Your task to perform on an android device: see tabs open on other devices in the chrome app Image 0: 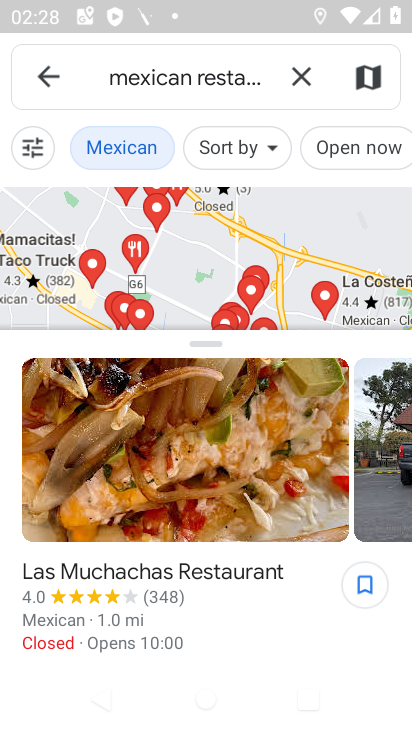
Step 0: press home button
Your task to perform on an android device: see tabs open on other devices in the chrome app Image 1: 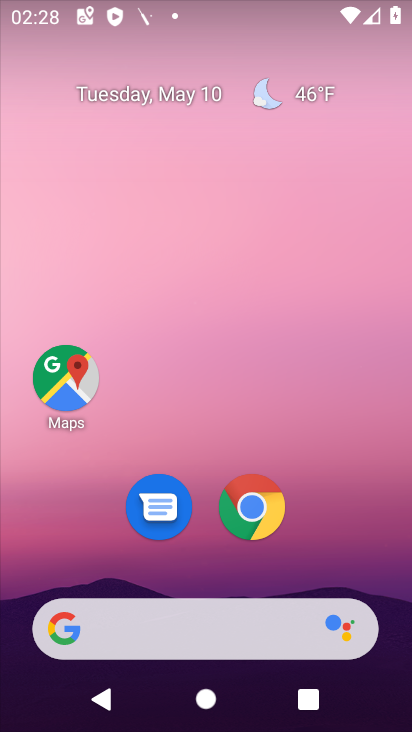
Step 1: drag from (228, 651) to (184, 40)
Your task to perform on an android device: see tabs open on other devices in the chrome app Image 2: 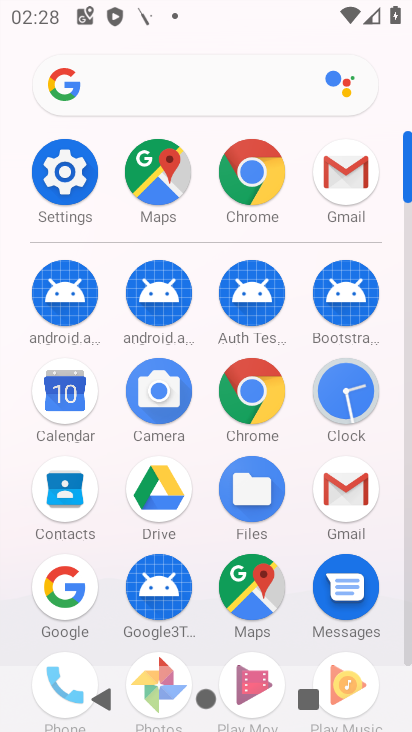
Step 2: click (253, 157)
Your task to perform on an android device: see tabs open on other devices in the chrome app Image 3: 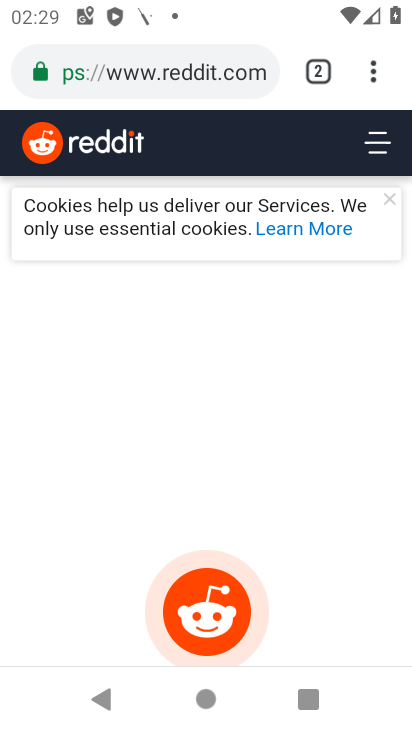
Step 3: click (374, 75)
Your task to perform on an android device: see tabs open on other devices in the chrome app Image 4: 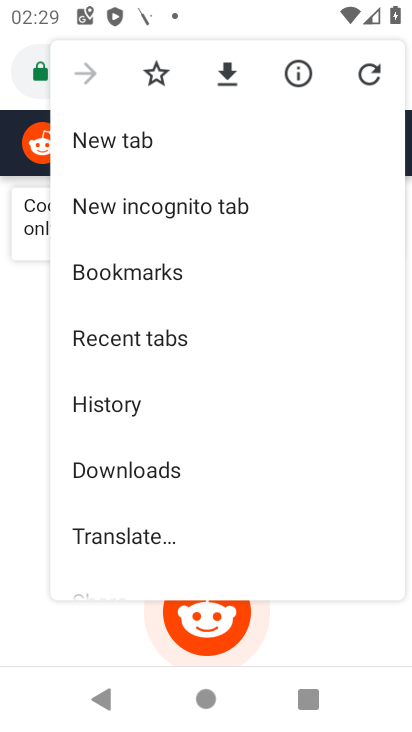
Step 4: click (103, 140)
Your task to perform on an android device: see tabs open on other devices in the chrome app Image 5: 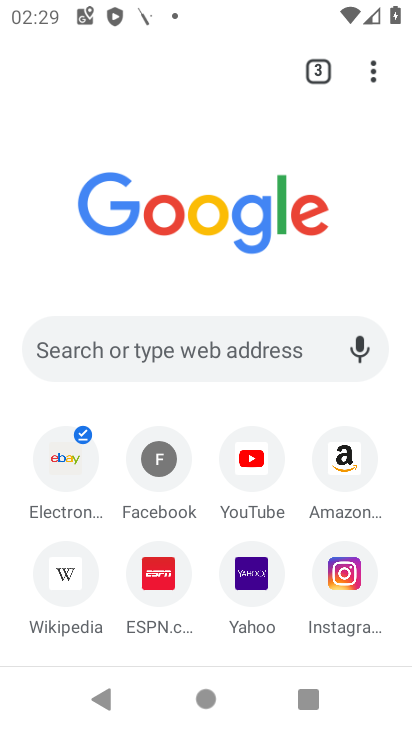
Step 5: task complete